Your task to perform on an android device: turn on the 24-hour format for clock Image 0: 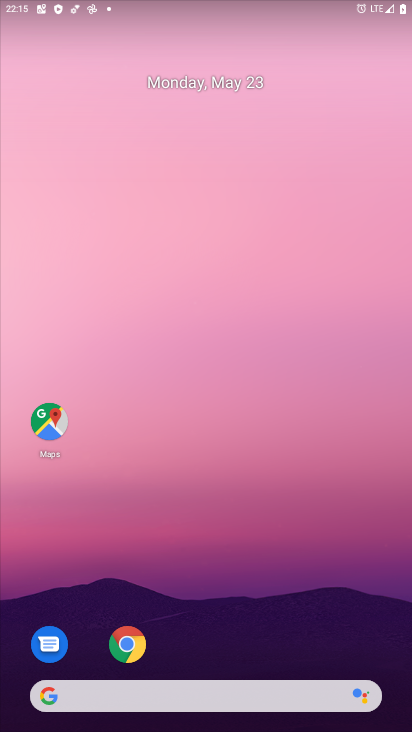
Step 0: drag from (195, 715) to (316, 11)
Your task to perform on an android device: turn on the 24-hour format for clock Image 1: 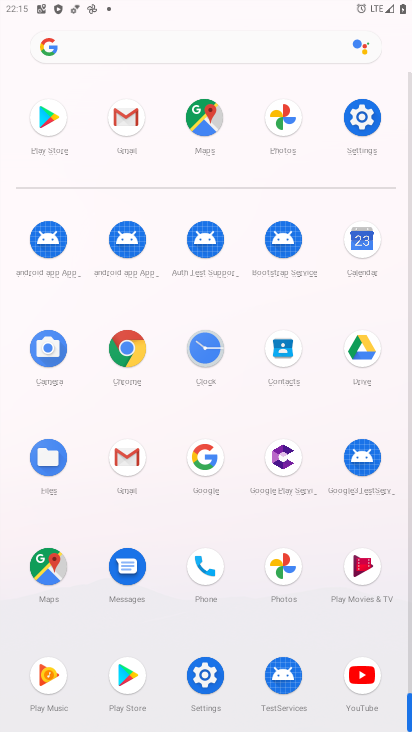
Step 1: click (198, 353)
Your task to perform on an android device: turn on the 24-hour format for clock Image 2: 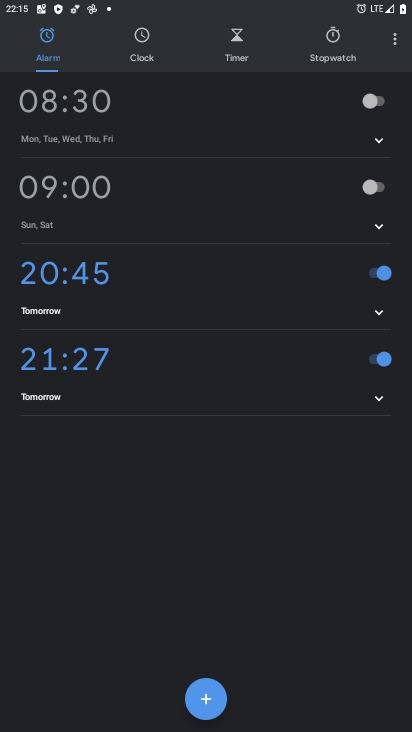
Step 2: click (395, 37)
Your task to perform on an android device: turn on the 24-hour format for clock Image 3: 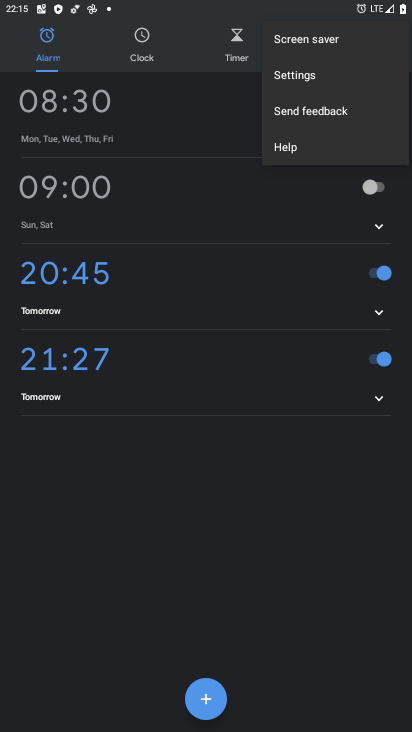
Step 3: click (320, 75)
Your task to perform on an android device: turn on the 24-hour format for clock Image 4: 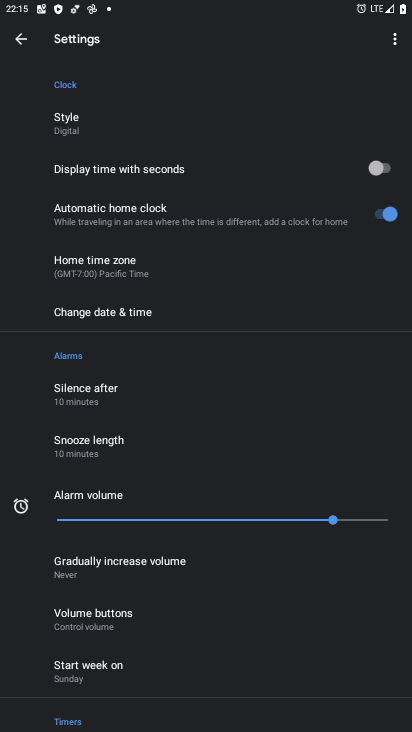
Step 4: click (267, 322)
Your task to perform on an android device: turn on the 24-hour format for clock Image 5: 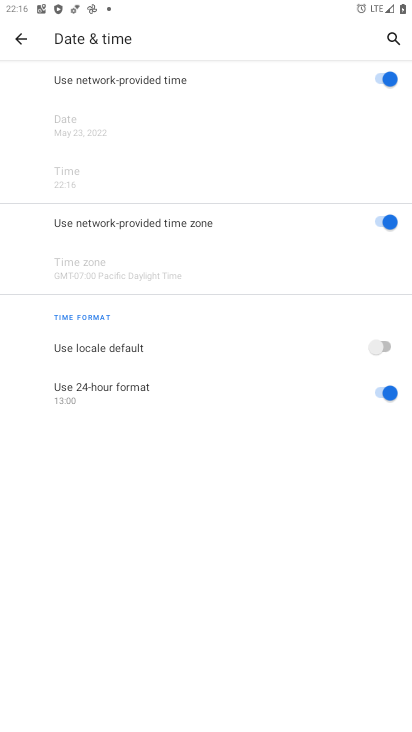
Step 5: task complete